Your task to perform on an android device: turn off smart reply in the gmail app Image 0: 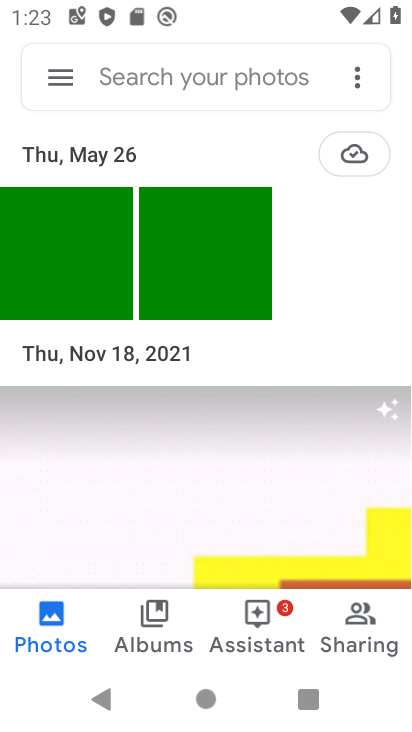
Step 0: press home button
Your task to perform on an android device: turn off smart reply in the gmail app Image 1: 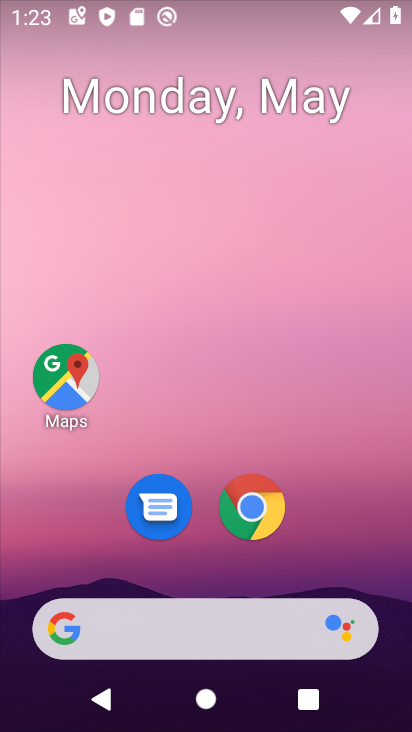
Step 1: drag from (217, 682) to (194, 5)
Your task to perform on an android device: turn off smart reply in the gmail app Image 2: 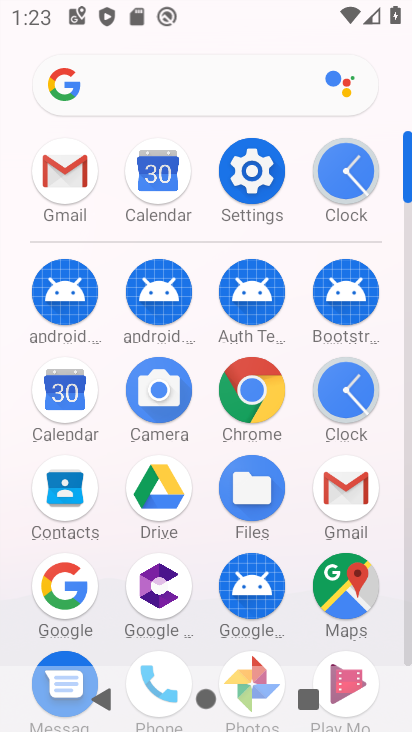
Step 2: click (345, 482)
Your task to perform on an android device: turn off smart reply in the gmail app Image 3: 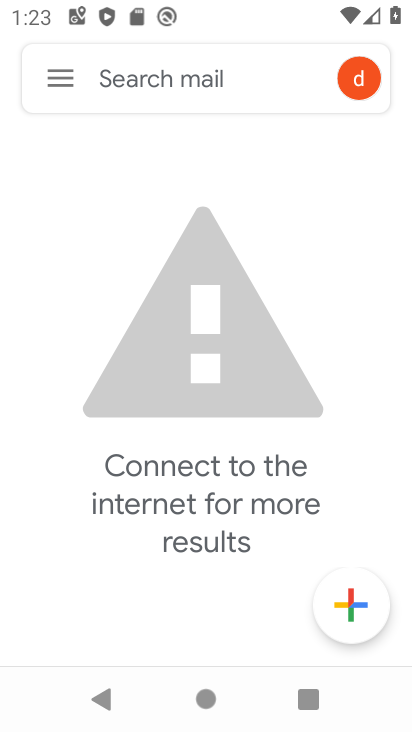
Step 3: click (58, 78)
Your task to perform on an android device: turn off smart reply in the gmail app Image 4: 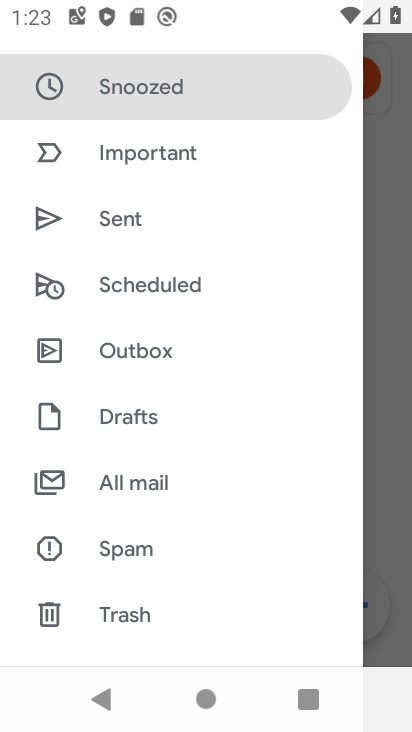
Step 4: drag from (163, 640) to (155, 138)
Your task to perform on an android device: turn off smart reply in the gmail app Image 5: 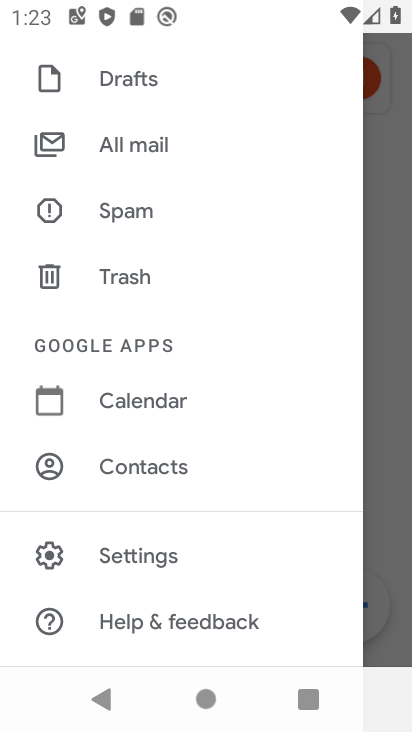
Step 5: click (138, 554)
Your task to perform on an android device: turn off smart reply in the gmail app Image 6: 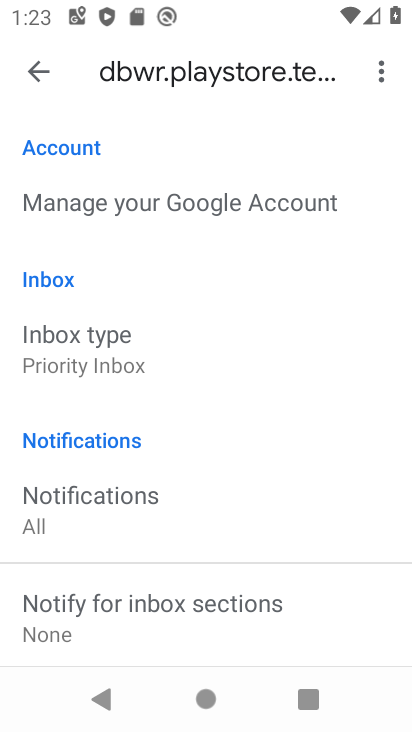
Step 6: task complete